Your task to perform on an android device: change timer sound Image 0: 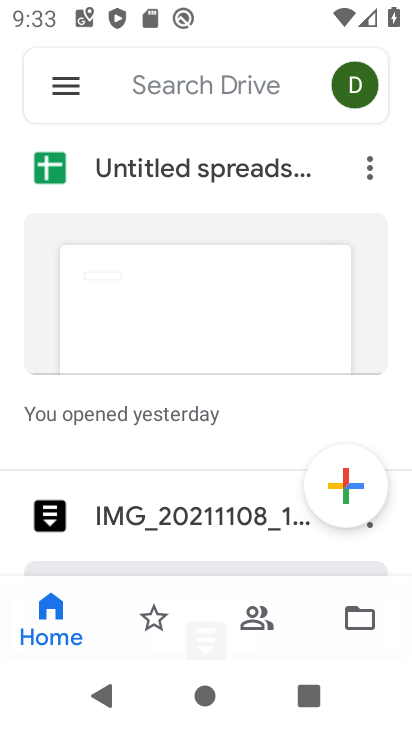
Step 0: press home button
Your task to perform on an android device: change timer sound Image 1: 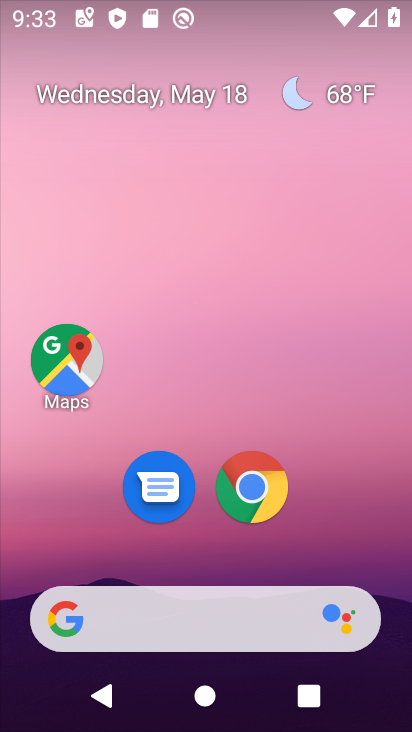
Step 1: drag from (371, 504) to (359, 132)
Your task to perform on an android device: change timer sound Image 2: 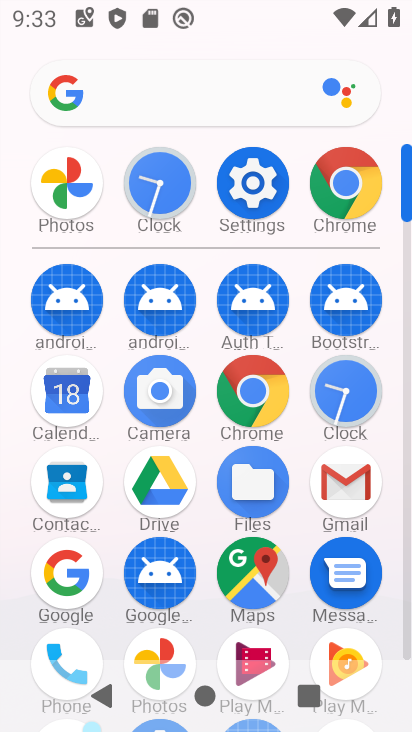
Step 2: click (364, 415)
Your task to perform on an android device: change timer sound Image 3: 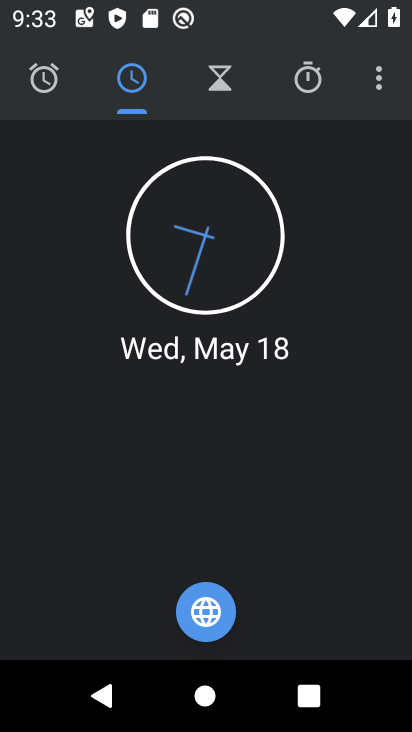
Step 3: drag from (384, 103) to (249, 163)
Your task to perform on an android device: change timer sound Image 4: 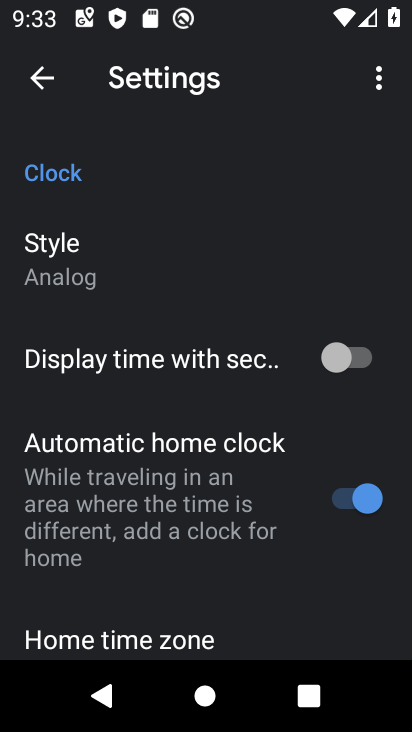
Step 4: drag from (269, 606) to (261, 262)
Your task to perform on an android device: change timer sound Image 5: 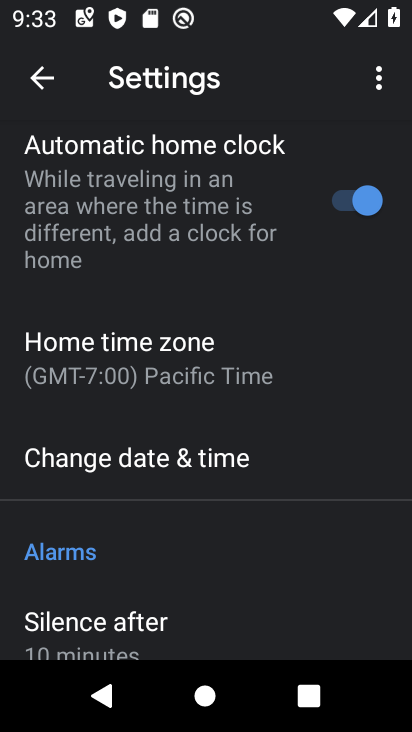
Step 5: drag from (261, 585) to (254, 263)
Your task to perform on an android device: change timer sound Image 6: 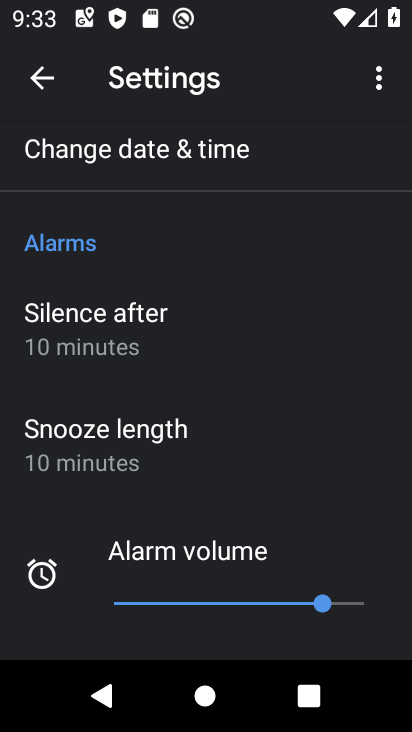
Step 6: drag from (249, 504) to (255, 234)
Your task to perform on an android device: change timer sound Image 7: 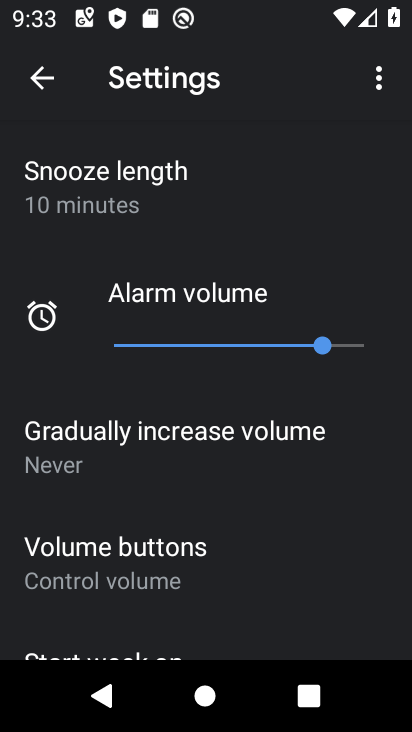
Step 7: drag from (253, 540) to (254, 267)
Your task to perform on an android device: change timer sound Image 8: 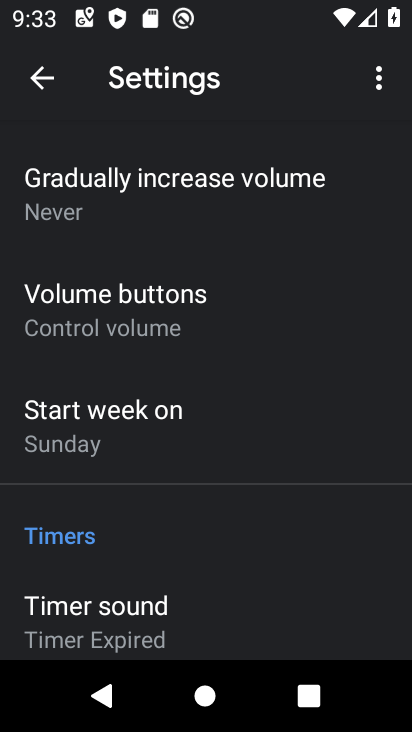
Step 8: click (148, 612)
Your task to perform on an android device: change timer sound Image 9: 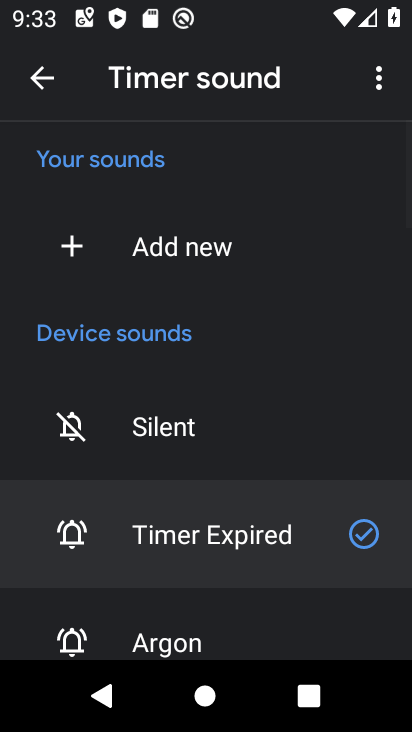
Step 9: click (184, 641)
Your task to perform on an android device: change timer sound Image 10: 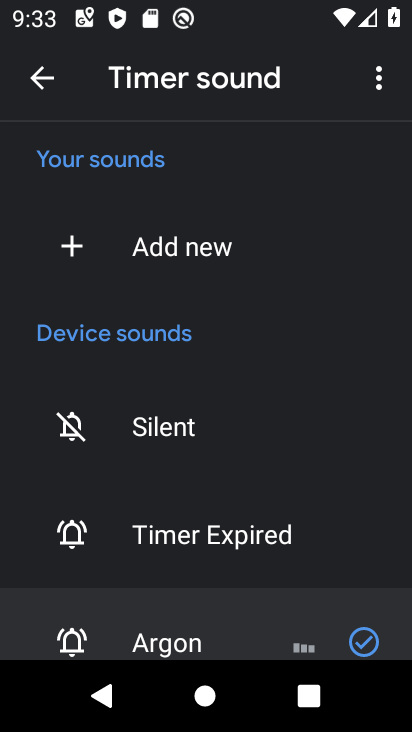
Step 10: task complete